Your task to perform on an android device: allow cookies in the chrome app Image 0: 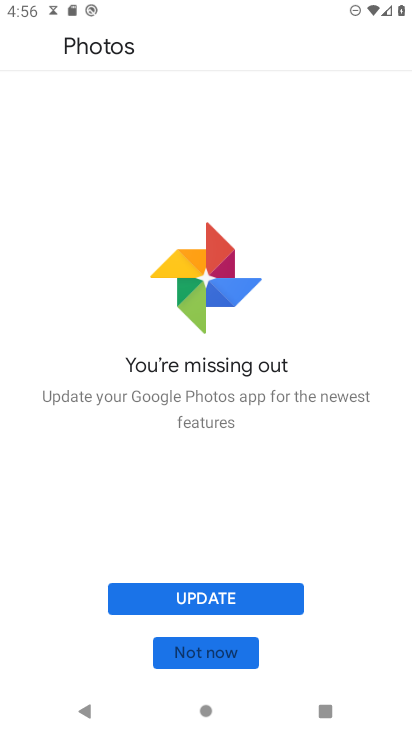
Step 0: press back button
Your task to perform on an android device: allow cookies in the chrome app Image 1: 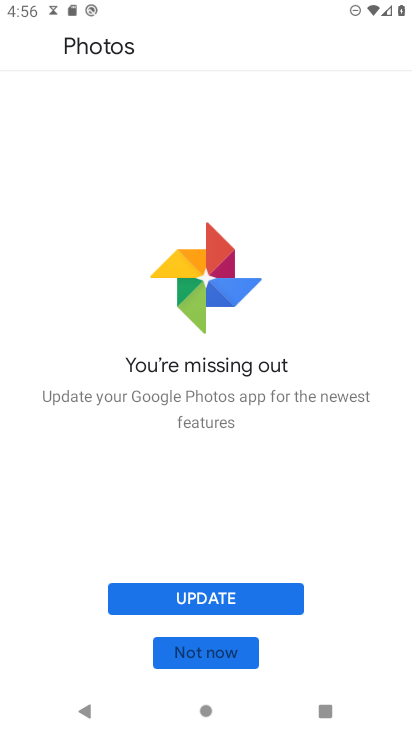
Step 1: press back button
Your task to perform on an android device: allow cookies in the chrome app Image 2: 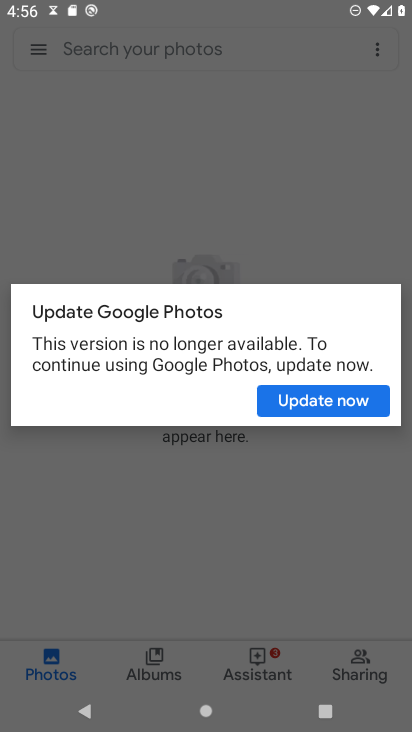
Step 2: press back button
Your task to perform on an android device: allow cookies in the chrome app Image 3: 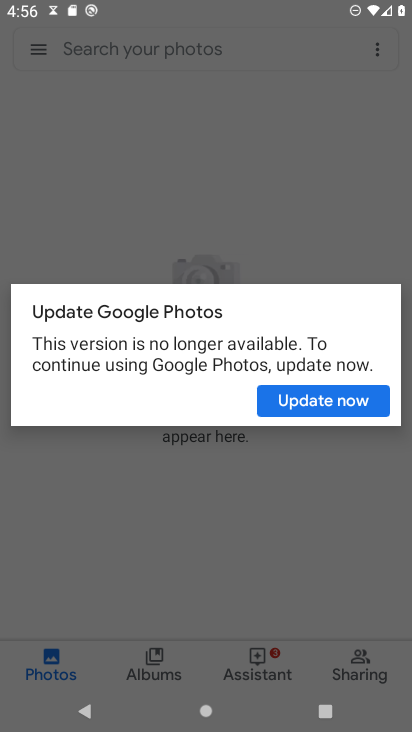
Step 3: press back button
Your task to perform on an android device: allow cookies in the chrome app Image 4: 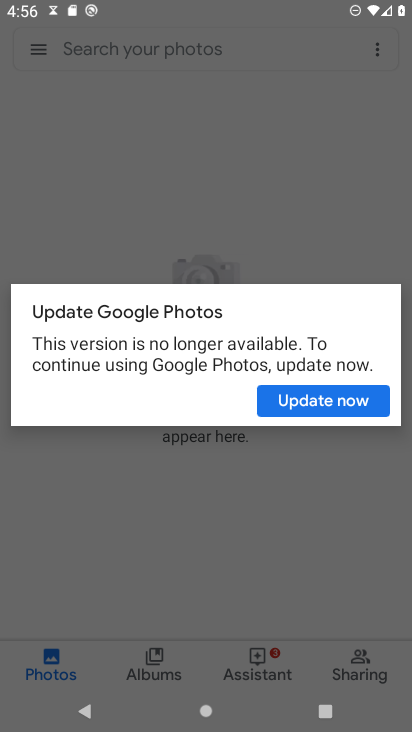
Step 4: press back button
Your task to perform on an android device: allow cookies in the chrome app Image 5: 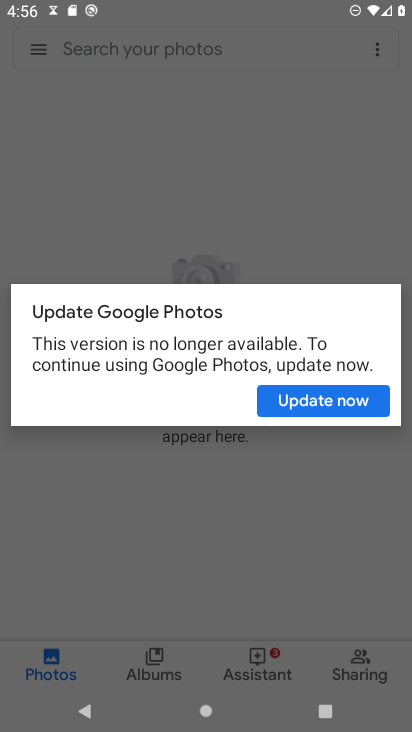
Step 5: press back button
Your task to perform on an android device: allow cookies in the chrome app Image 6: 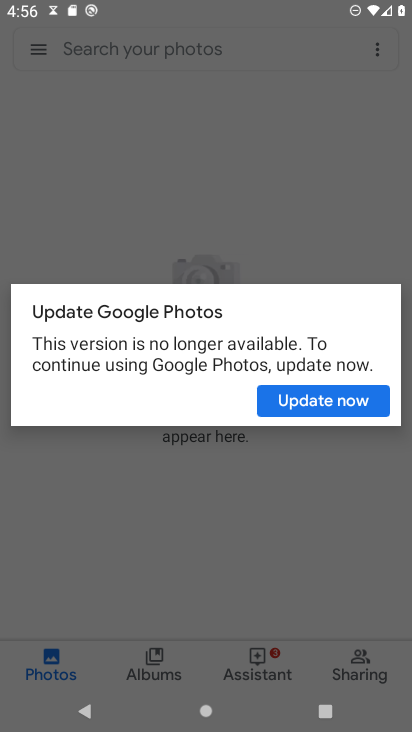
Step 6: press back button
Your task to perform on an android device: allow cookies in the chrome app Image 7: 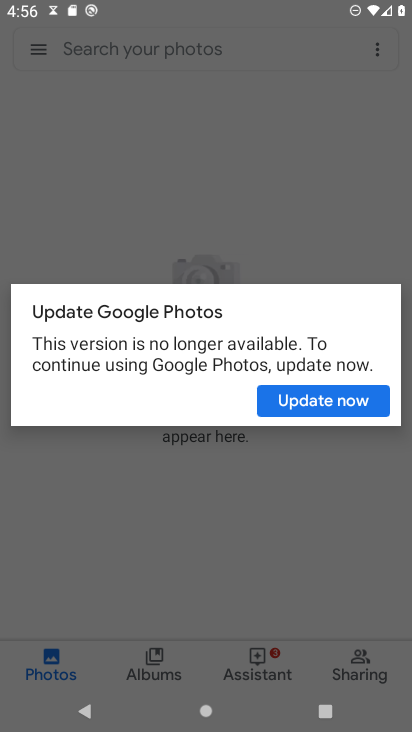
Step 7: press back button
Your task to perform on an android device: allow cookies in the chrome app Image 8: 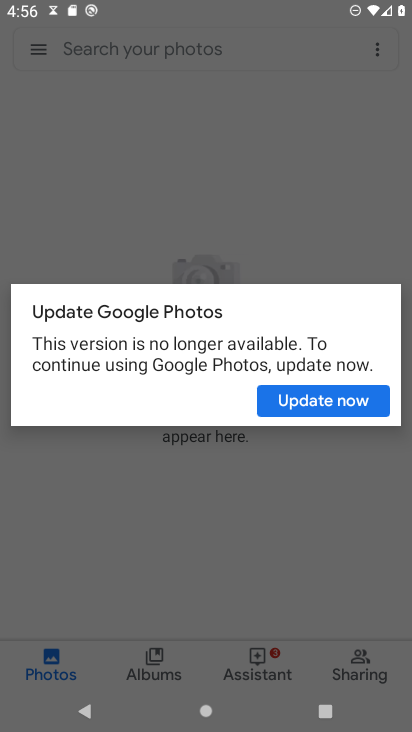
Step 8: press back button
Your task to perform on an android device: allow cookies in the chrome app Image 9: 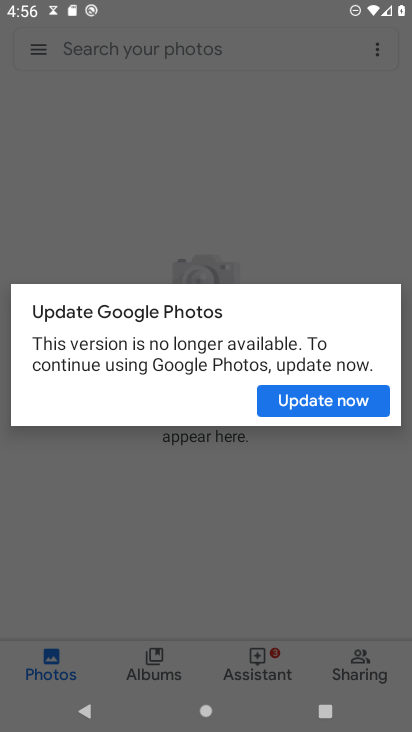
Step 9: press home button
Your task to perform on an android device: allow cookies in the chrome app Image 10: 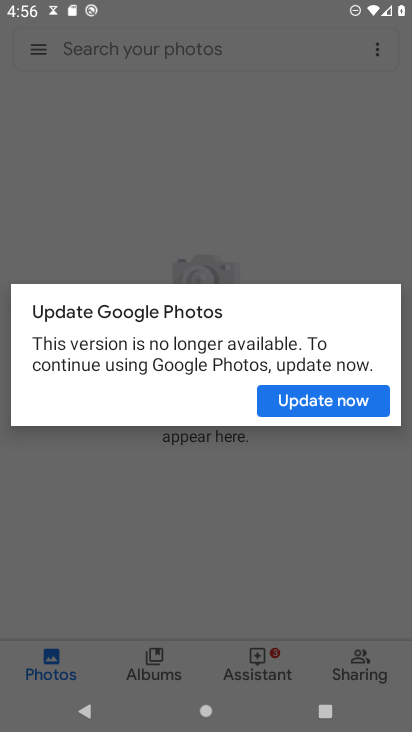
Step 10: press back button
Your task to perform on an android device: allow cookies in the chrome app Image 11: 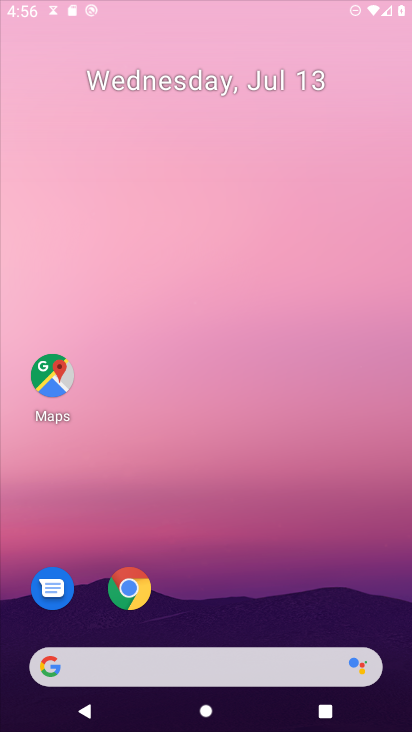
Step 11: press back button
Your task to perform on an android device: allow cookies in the chrome app Image 12: 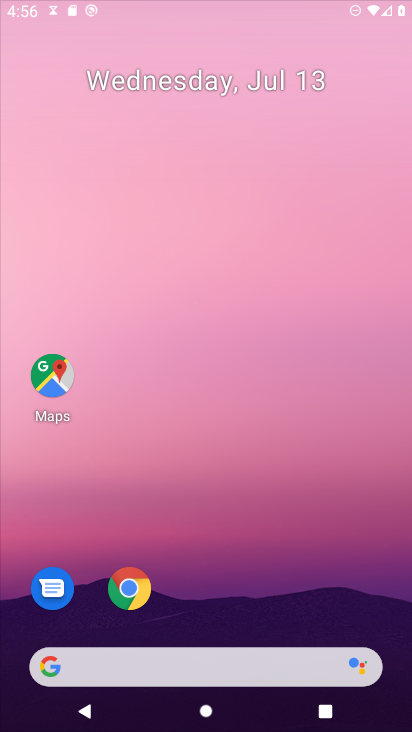
Step 12: click (249, 104)
Your task to perform on an android device: allow cookies in the chrome app Image 13: 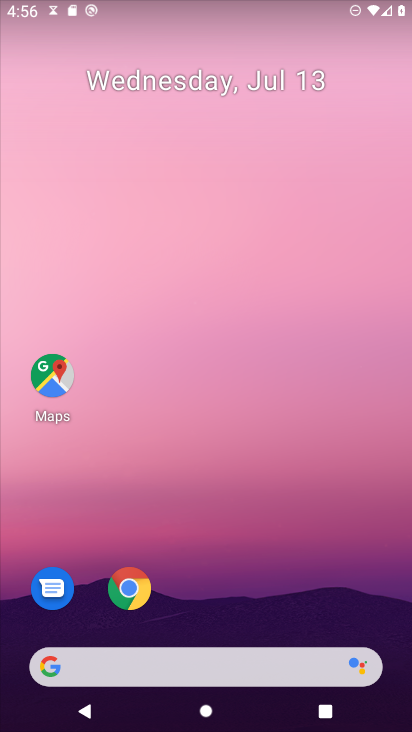
Step 13: drag from (275, 573) to (144, 26)
Your task to perform on an android device: allow cookies in the chrome app Image 14: 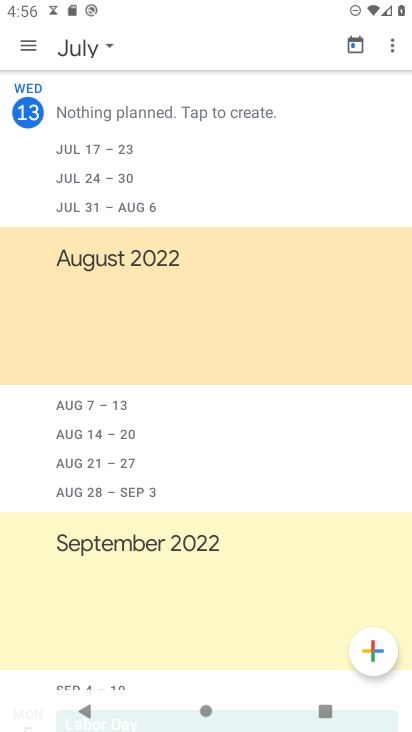
Step 14: press back button
Your task to perform on an android device: allow cookies in the chrome app Image 15: 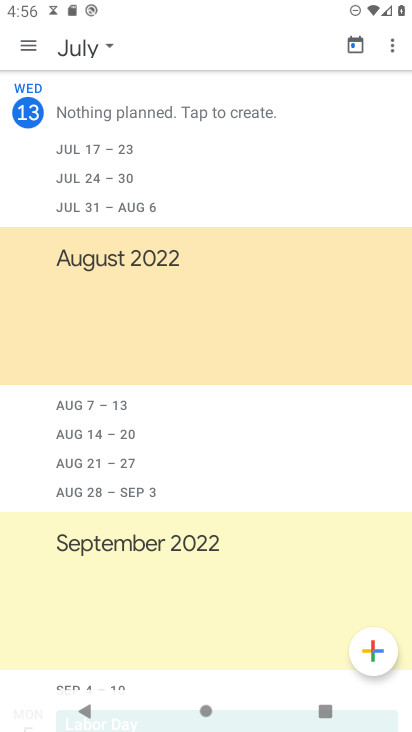
Step 15: press back button
Your task to perform on an android device: allow cookies in the chrome app Image 16: 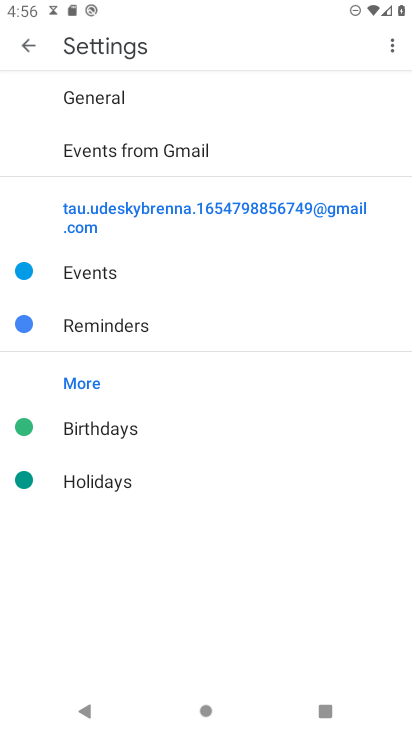
Step 16: press back button
Your task to perform on an android device: allow cookies in the chrome app Image 17: 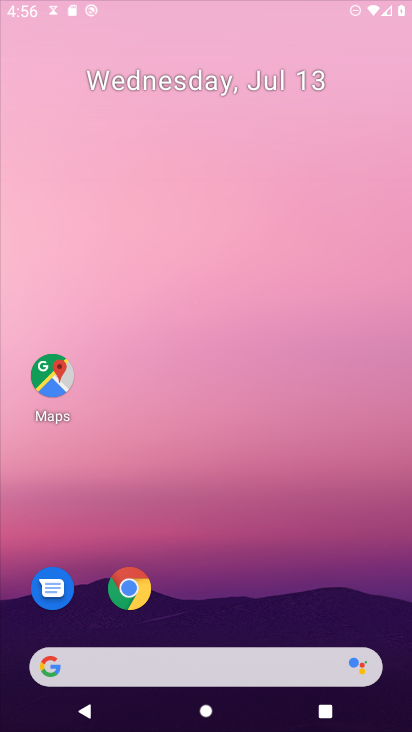
Step 17: press back button
Your task to perform on an android device: allow cookies in the chrome app Image 18: 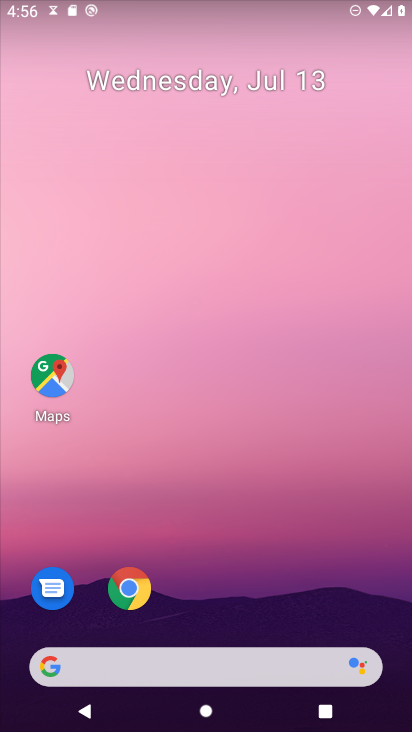
Step 18: drag from (211, 592) to (131, 148)
Your task to perform on an android device: allow cookies in the chrome app Image 19: 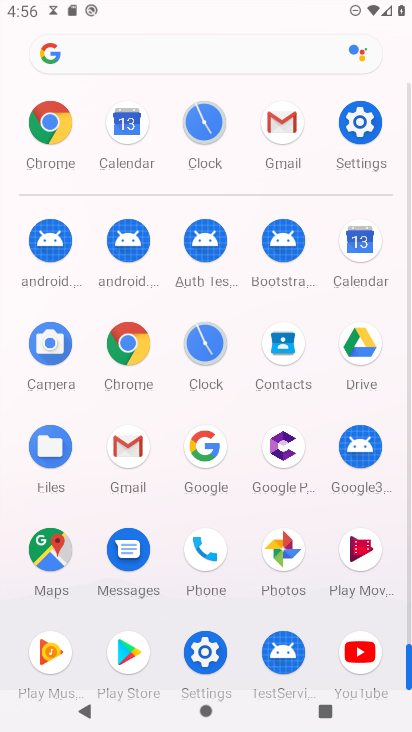
Step 19: click (138, 337)
Your task to perform on an android device: allow cookies in the chrome app Image 20: 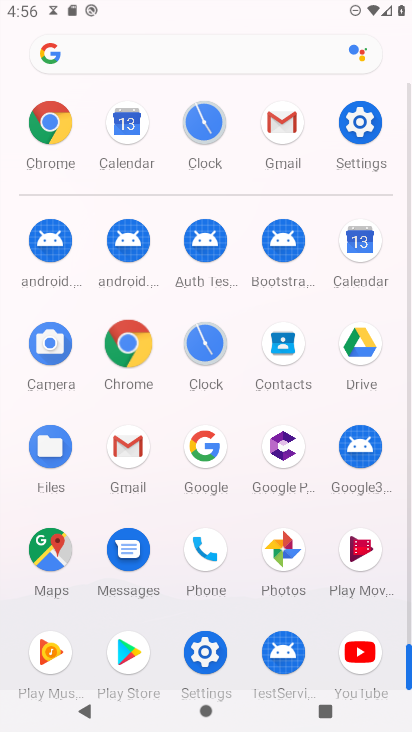
Step 20: click (141, 368)
Your task to perform on an android device: allow cookies in the chrome app Image 21: 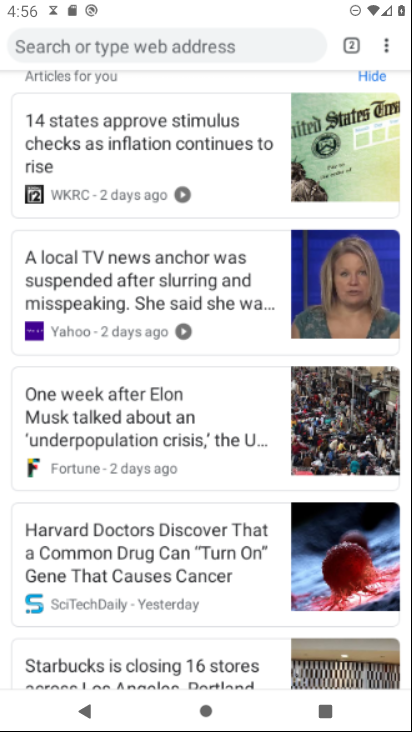
Step 21: click (139, 347)
Your task to perform on an android device: allow cookies in the chrome app Image 22: 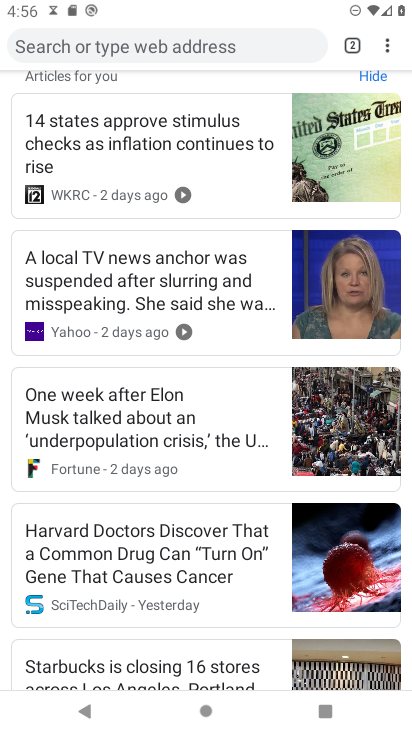
Step 22: drag from (387, 42) to (214, 90)
Your task to perform on an android device: allow cookies in the chrome app Image 23: 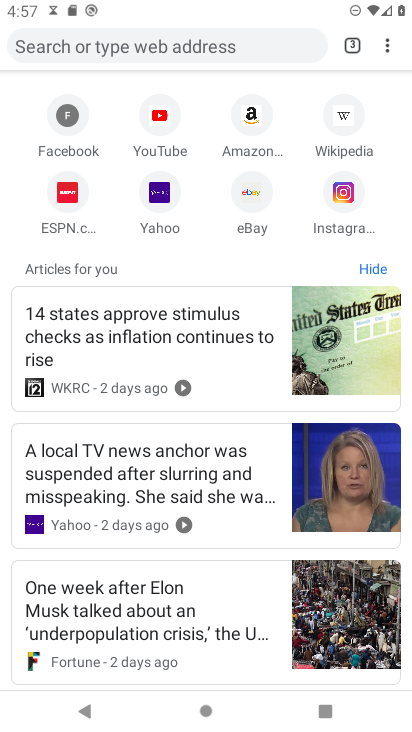
Step 23: drag from (378, 41) to (221, 396)
Your task to perform on an android device: allow cookies in the chrome app Image 24: 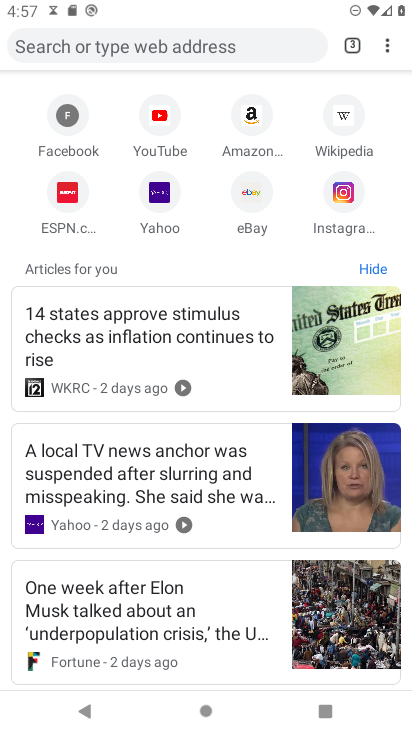
Step 24: click (219, 395)
Your task to perform on an android device: allow cookies in the chrome app Image 25: 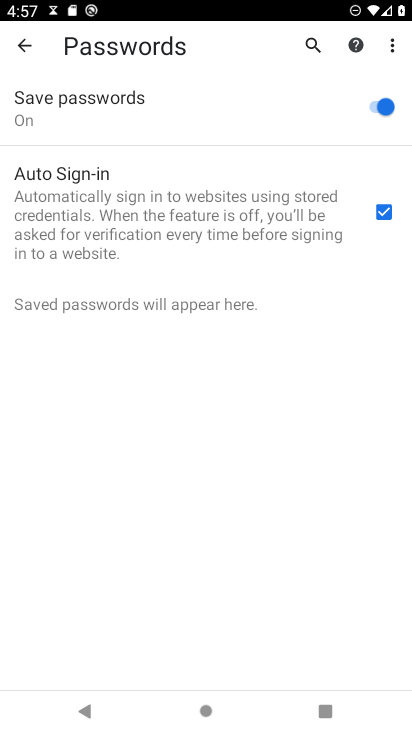
Step 25: click (25, 39)
Your task to perform on an android device: allow cookies in the chrome app Image 26: 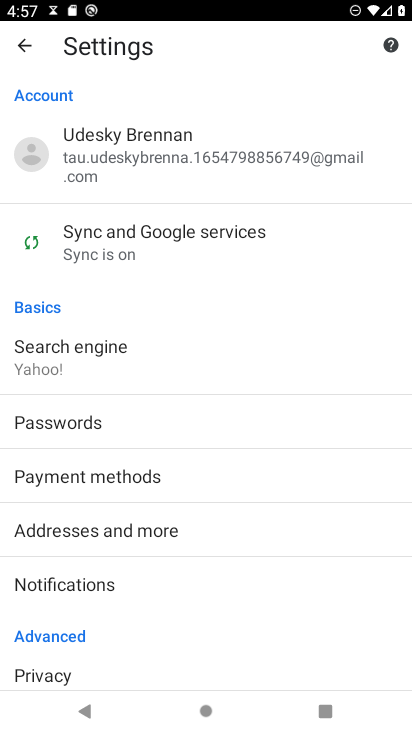
Step 26: drag from (90, 562) to (90, 127)
Your task to perform on an android device: allow cookies in the chrome app Image 27: 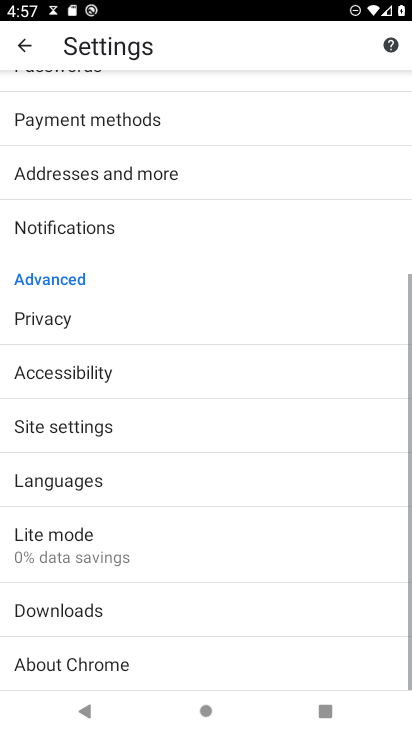
Step 27: drag from (157, 563) to (153, 244)
Your task to perform on an android device: allow cookies in the chrome app Image 28: 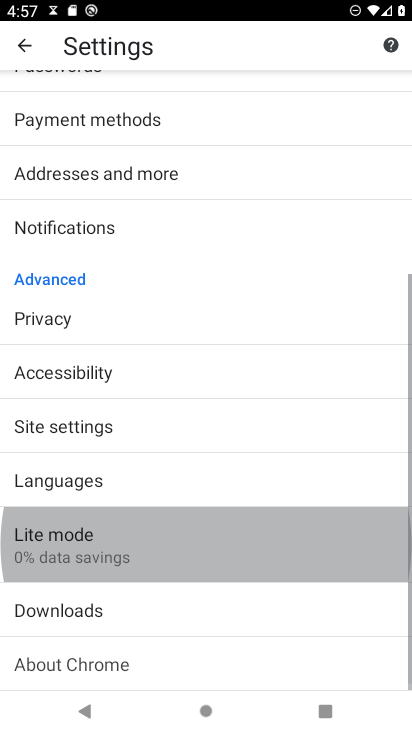
Step 28: drag from (154, 521) to (129, 157)
Your task to perform on an android device: allow cookies in the chrome app Image 29: 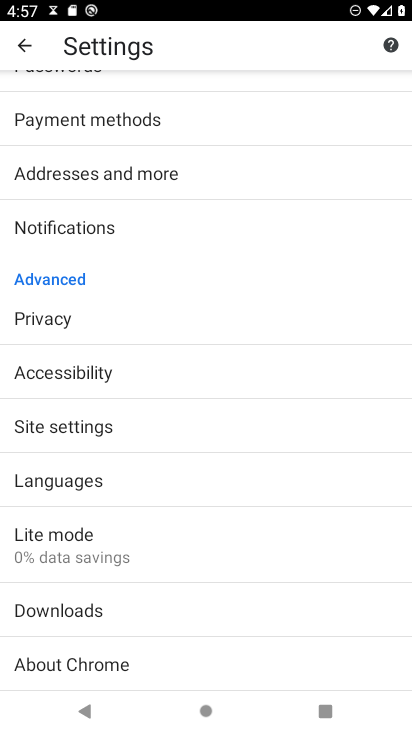
Step 29: click (61, 422)
Your task to perform on an android device: allow cookies in the chrome app Image 30: 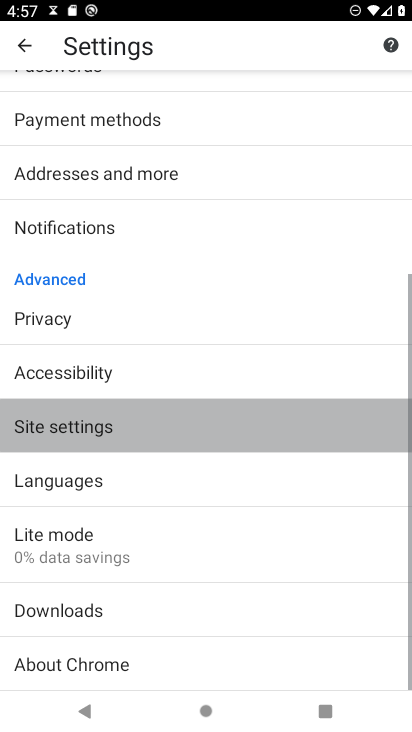
Step 30: click (61, 422)
Your task to perform on an android device: allow cookies in the chrome app Image 31: 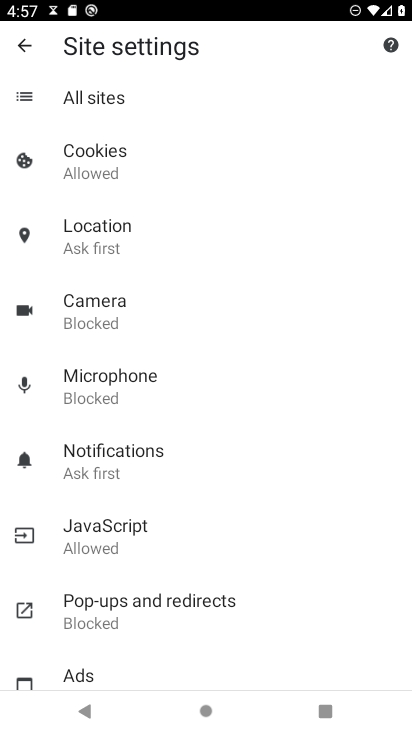
Step 31: click (86, 153)
Your task to perform on an android device: allow cookies in the chrome app Image 32: 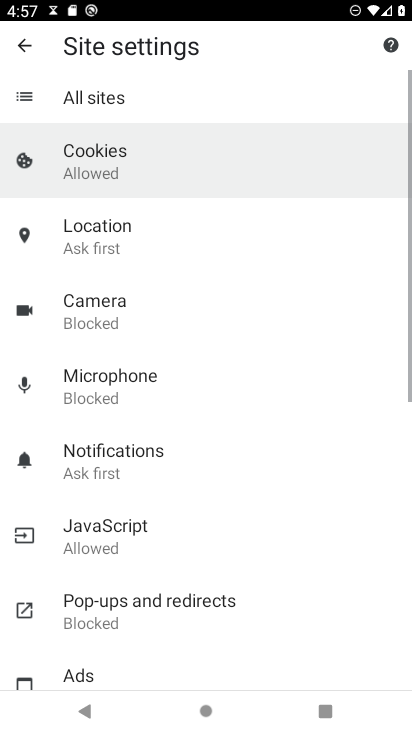
Step 32: click (96, 148)
Your task to perform on an android device: allow cookies in the chrome app Image 33: 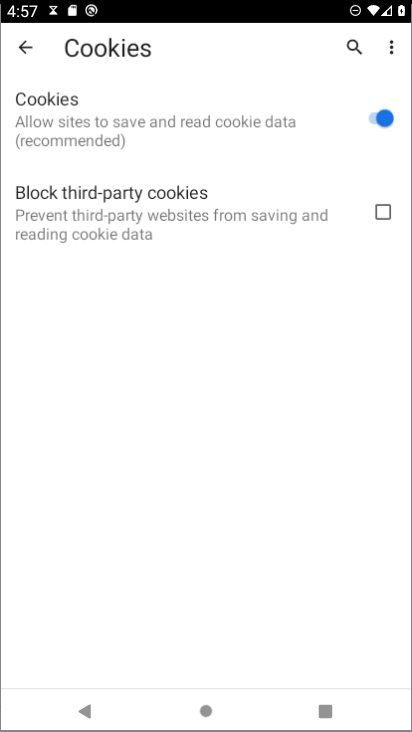
Step 33: click (97, 147)
Your task to perform on an android device: allow cookies in the chrome app Image 34: 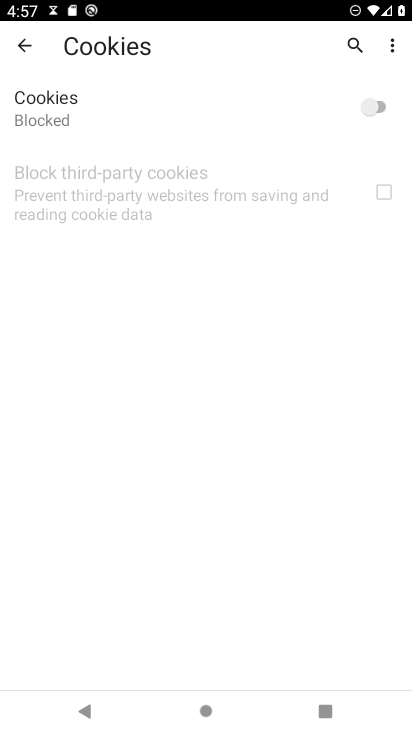
Step 34: click (364, 99)
Your task to perform on an android device: allow cookies in the chrome app Image 35: 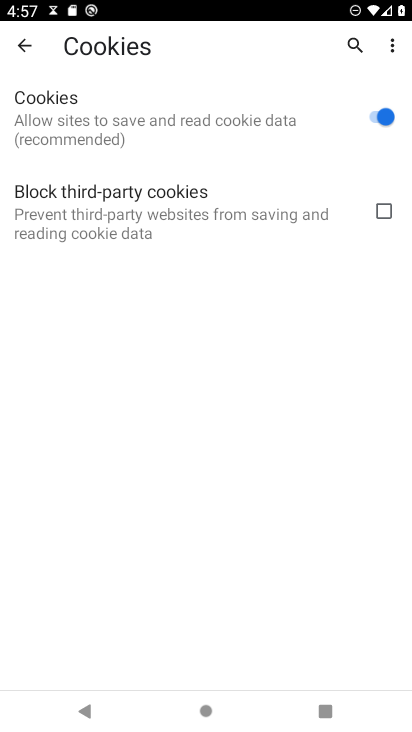
Step 35: task complete